Your task to perform on an android device: Turn on the flashlight Image 0: 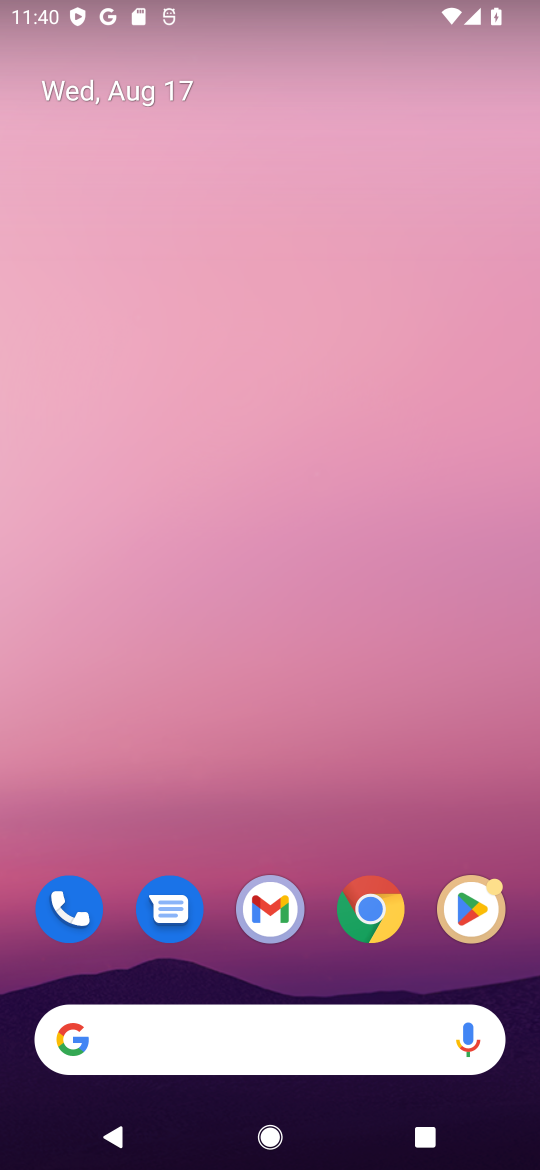
Step 0: drag from (303, 813) to (228, 219)
Your task to perform on an android device: Turn on the flashlight Image 1: 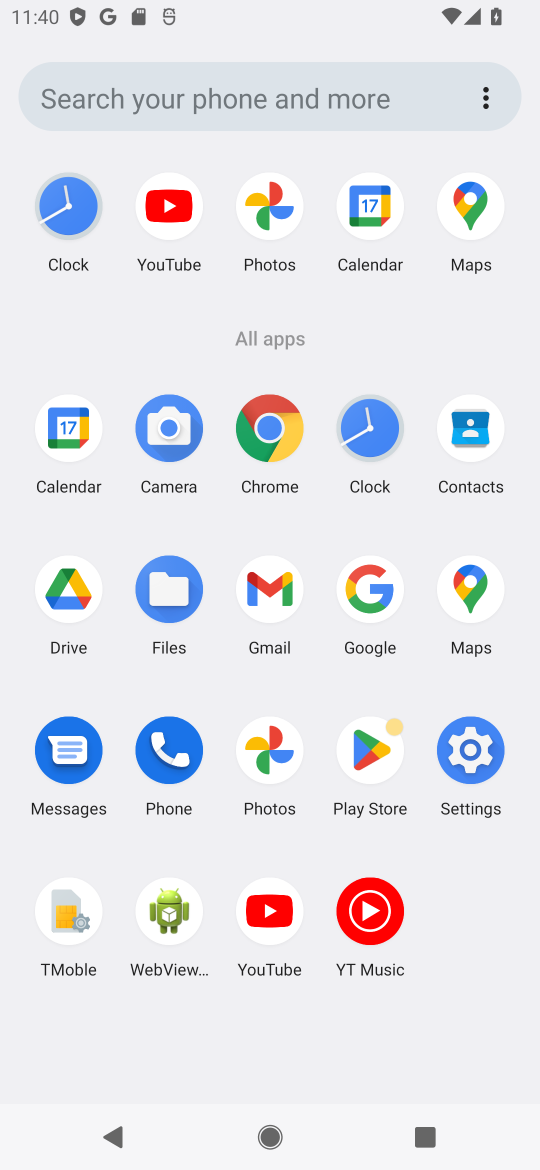
Step 1: click (469, 748)
Your task to perform on an android device: Turn on the flashlight Image 2: 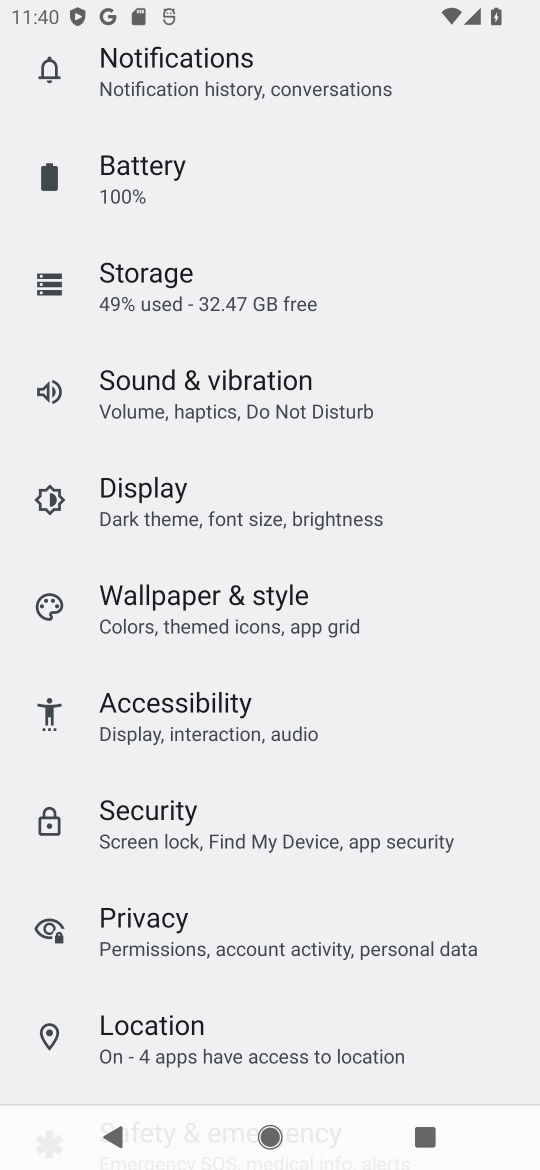
Step 2: click (472, 746)
Your task to perform on an android device: Turn on the flashlight Image 3: 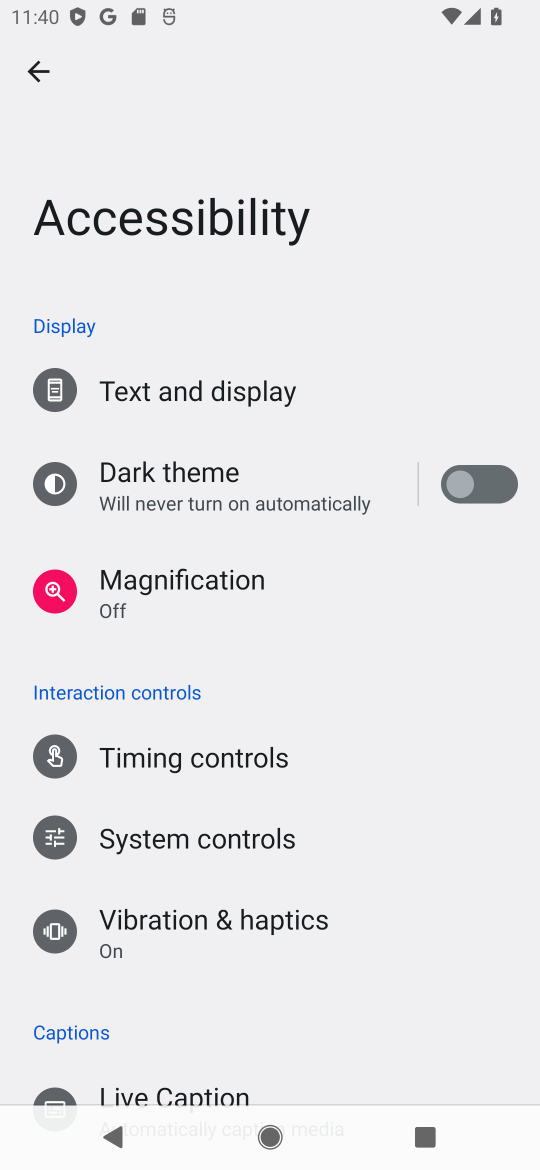
Step 3: click (39, 63)
Your task to perform on an android device: Turn on the flashlight Image 4: 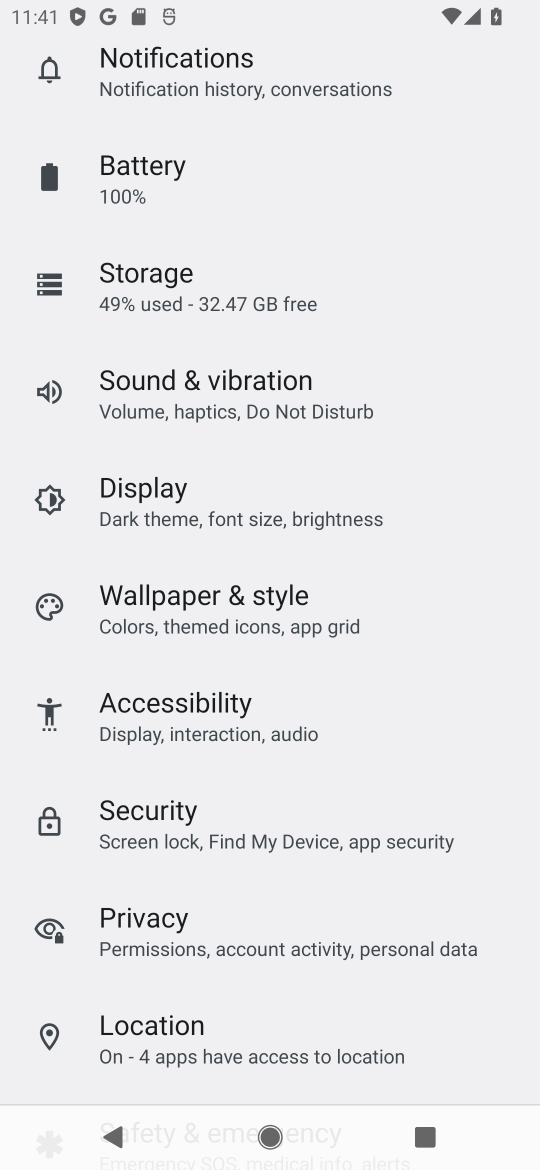
Step 4: click (144, 513)
Your task to perform on an android device: Turn on the flashlight Image 5: 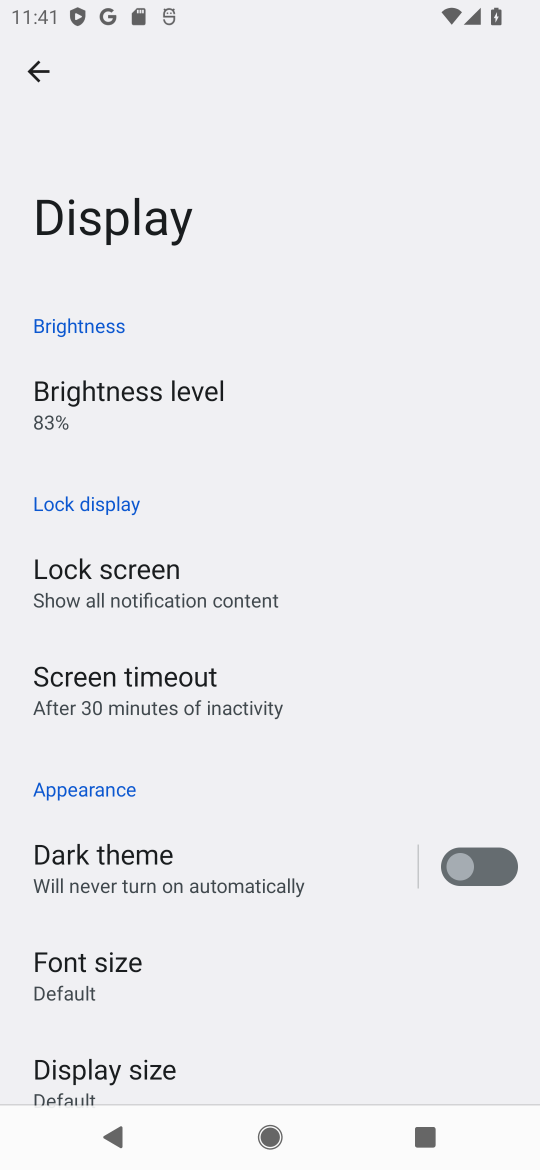
Step 5: task complete